Your task to perform on an android device: Turn on the flashlight Image 0: 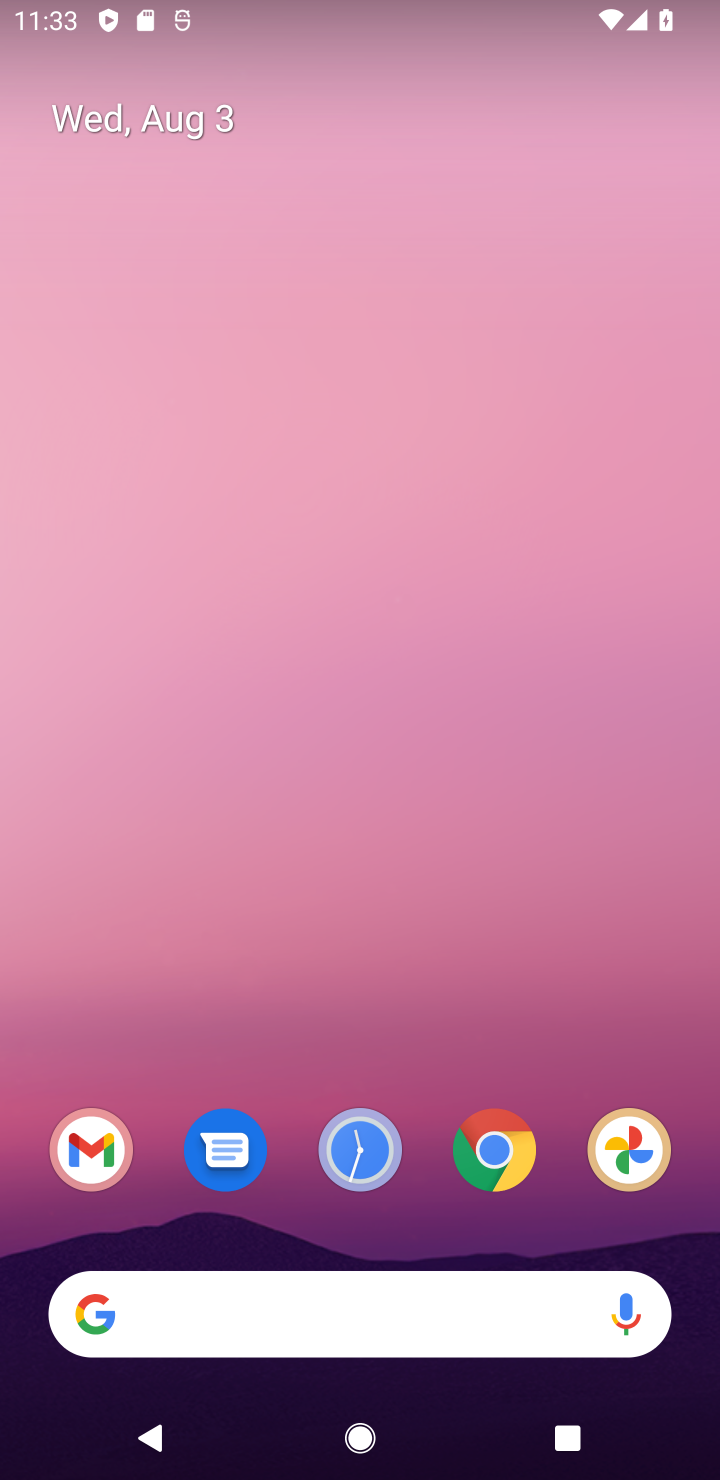
Step 0: click (548, 1058)
Your task to perform on an android device: Turn on the flashlight Image 1: 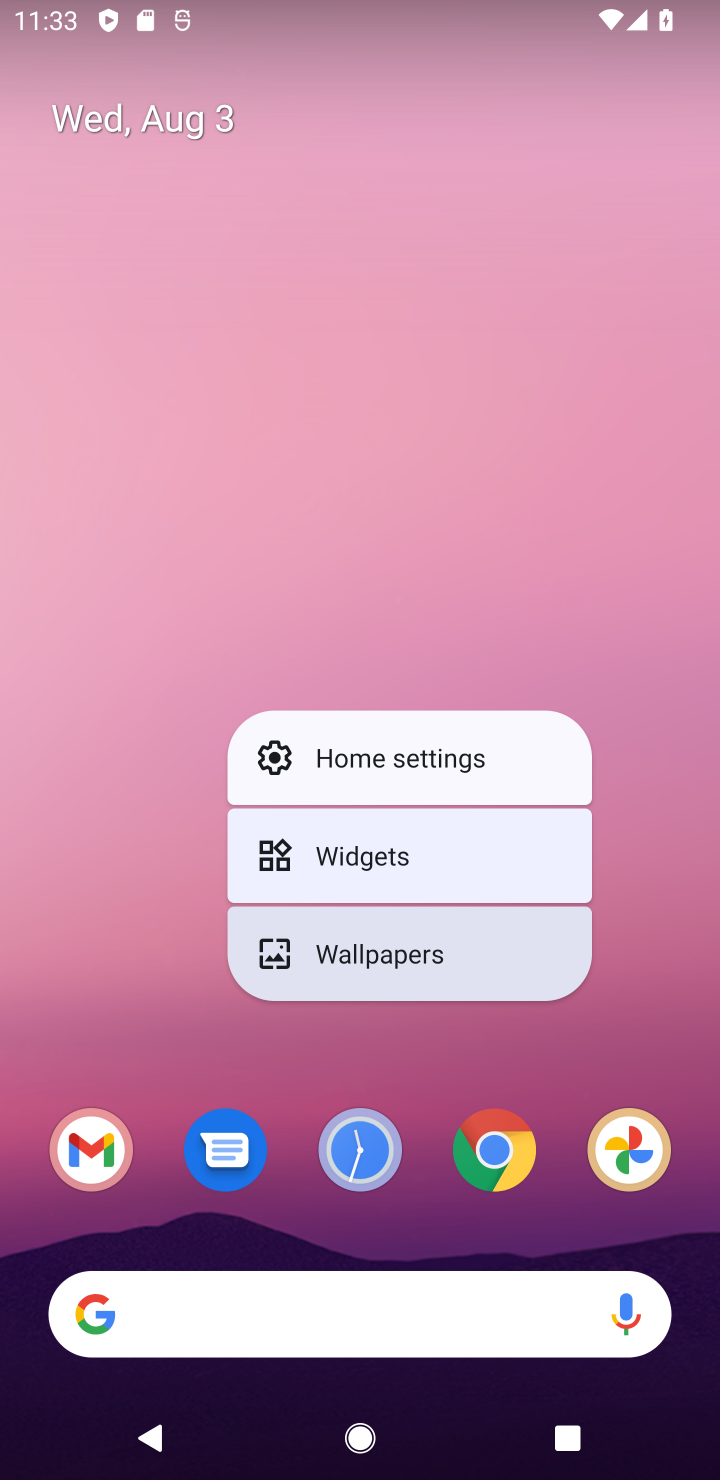
Step 1: click (459, 405)
Your task to perform on an android device: Turn on the flashlight Image 2: 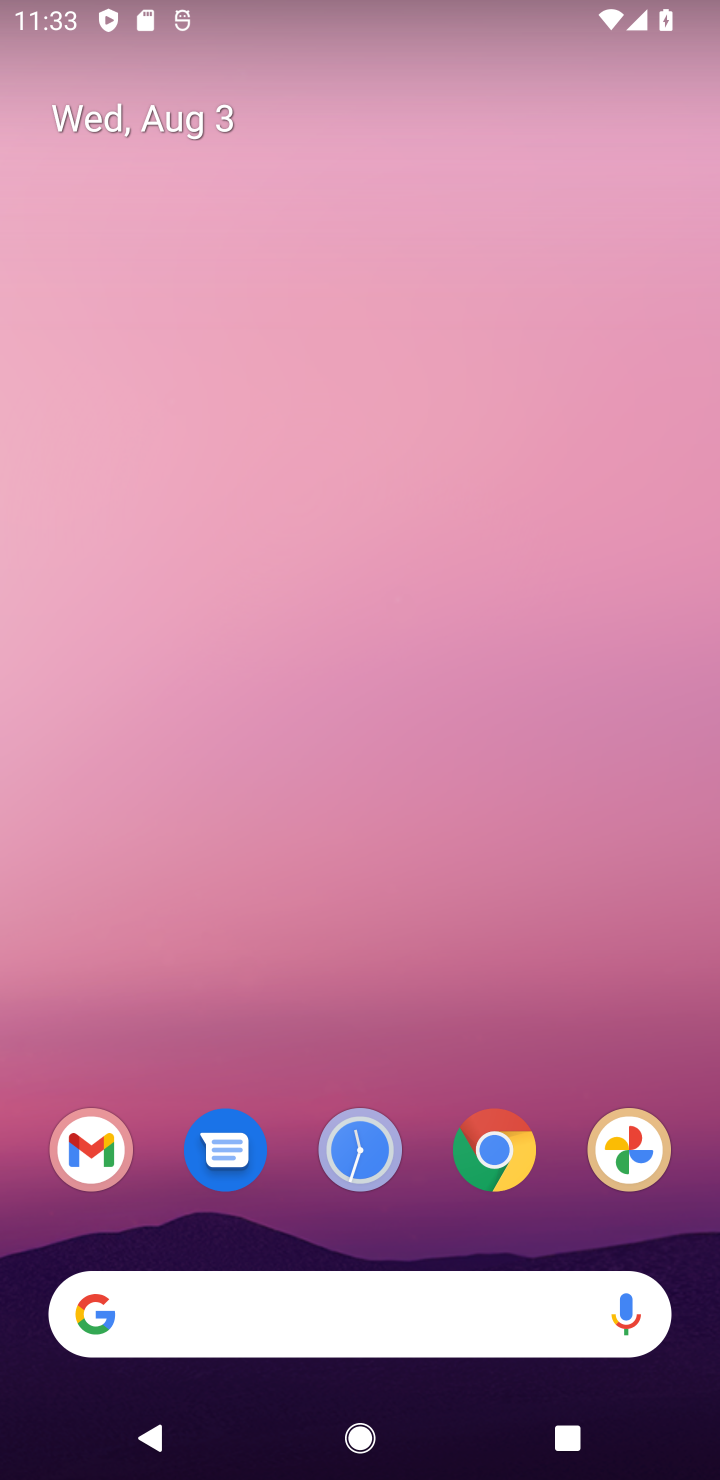
Step 2: drag from (391, 5) to (411, 888)
Your task to perform on an android device: Turn on the flashlight Image 3: 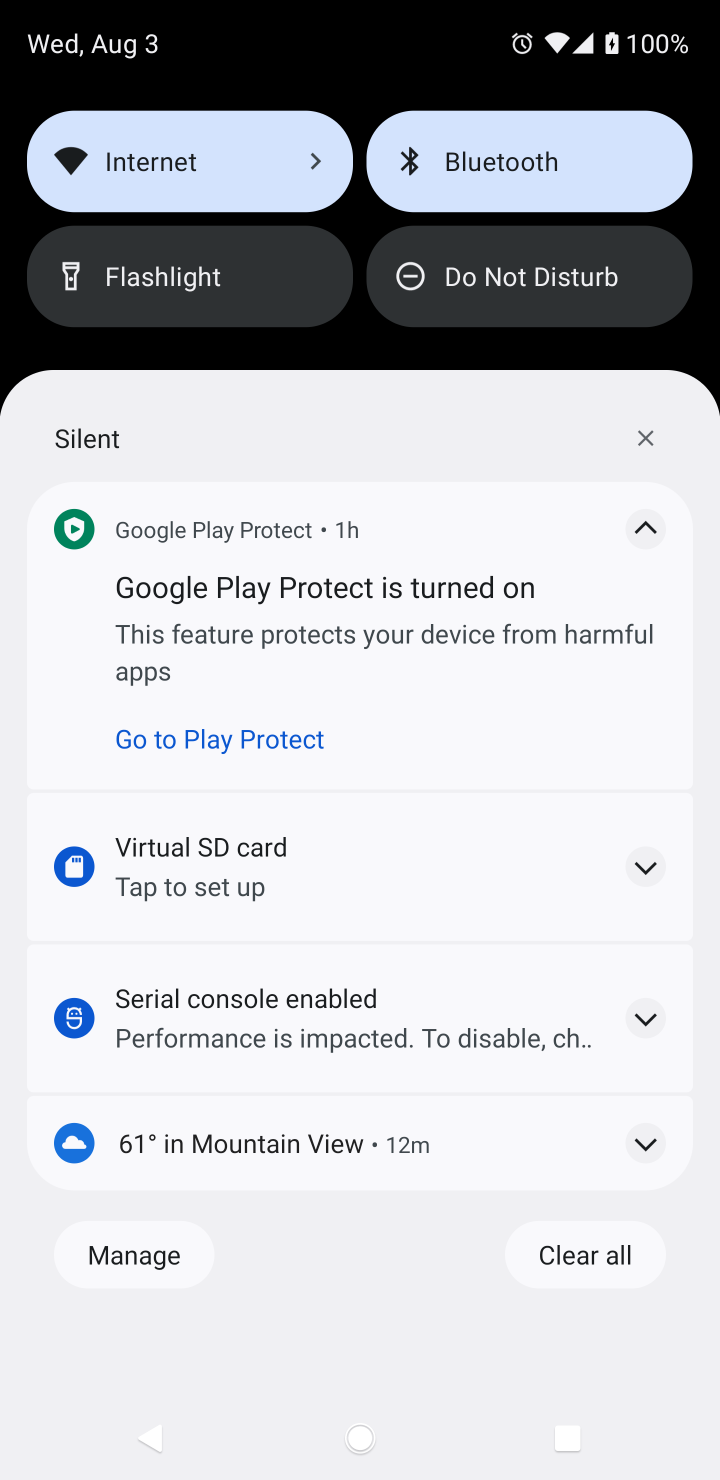
Step 3: drag from (351, 54) to (351, 724)
Your task to perform on an android device: Turn on the flashlight Image 4: 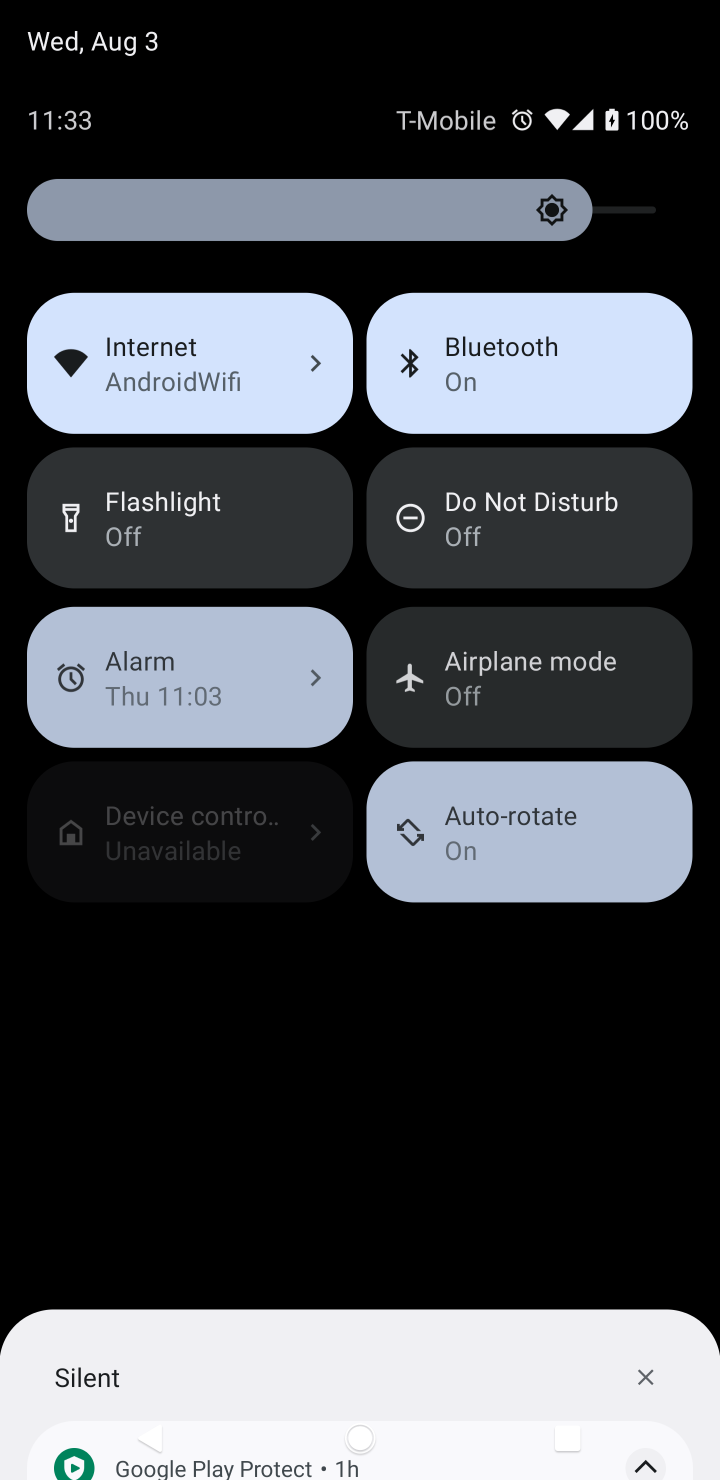
Step 4: click (196, 471)
Your task to perform on an android device: Turn on the flashlight Image 5: 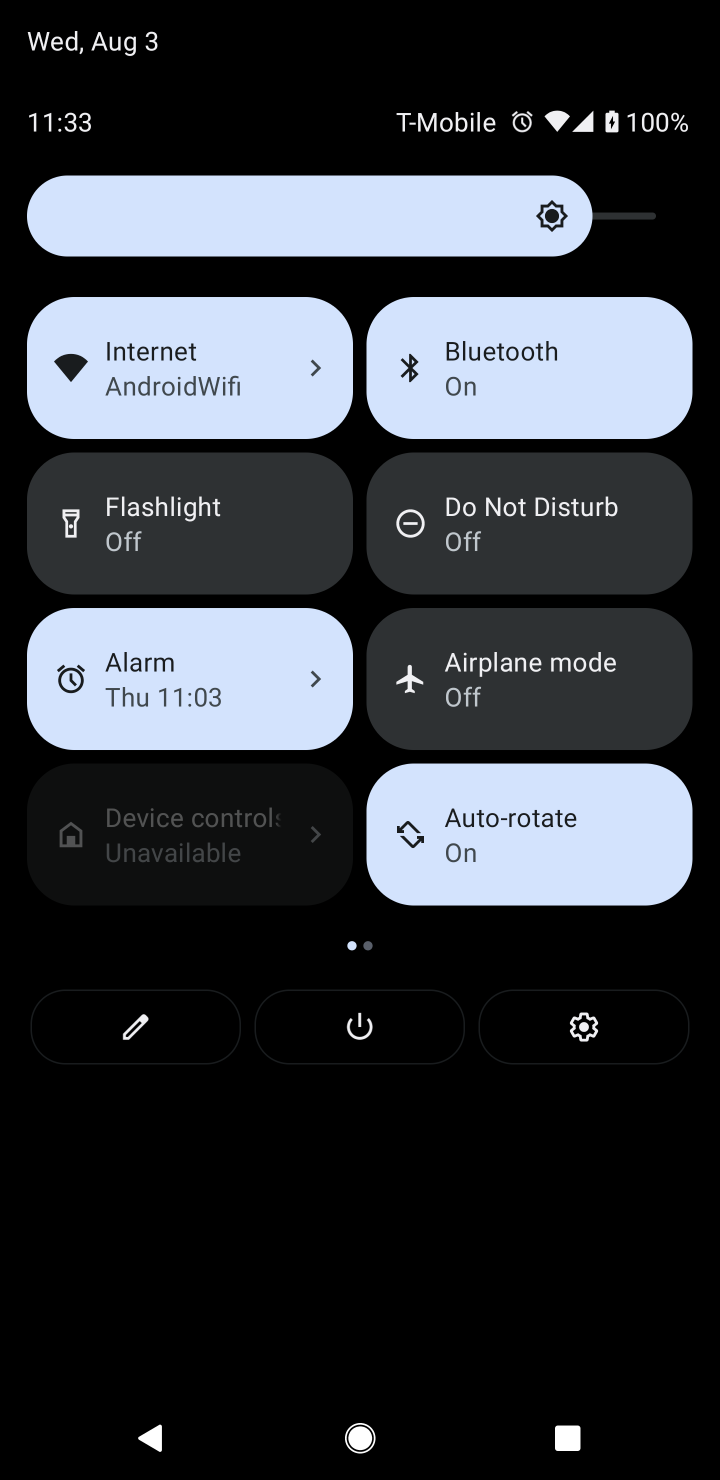
Step 5: click (249, 524)
Your task to perform on an android device: Turn on the flashlight Image 6: 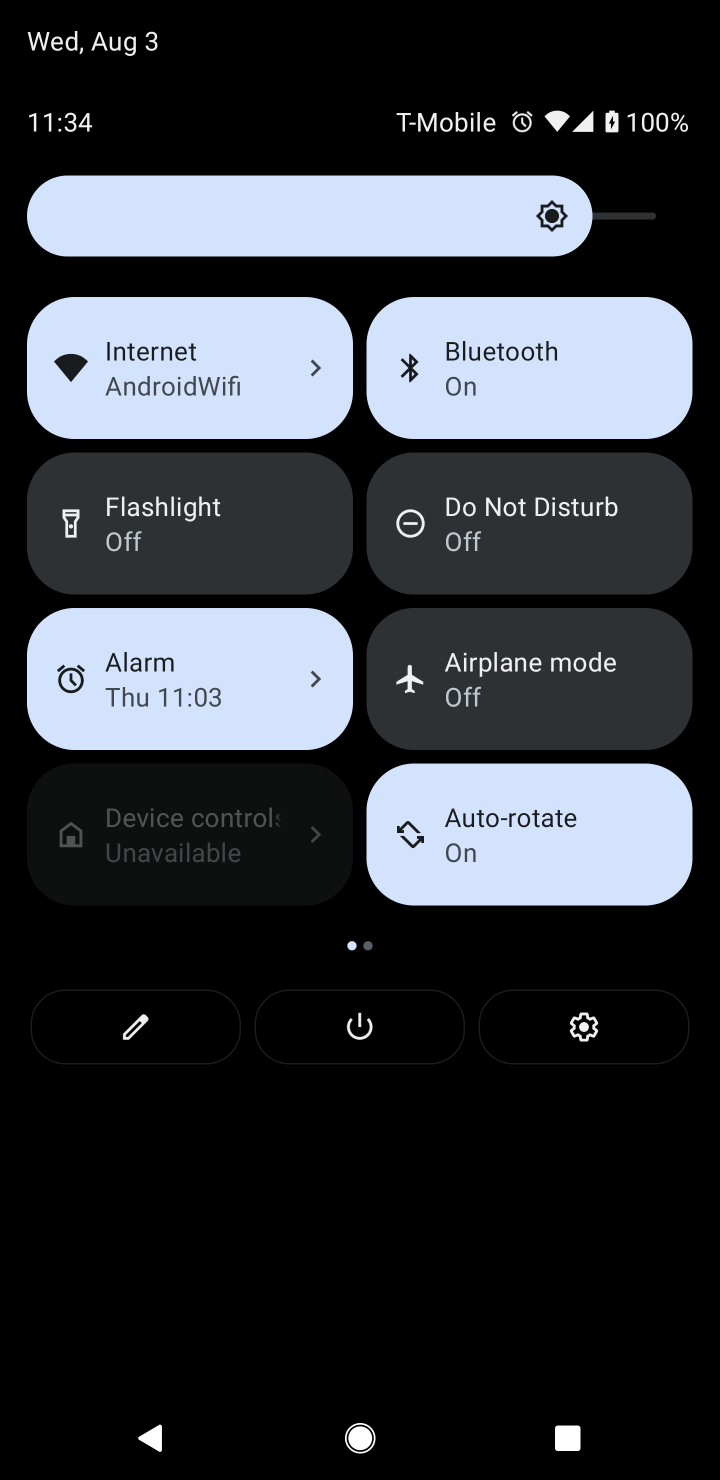
Step 6: task complete